Your task to perform on an android device: allow notifications from all sites in the chrome app Image 0: 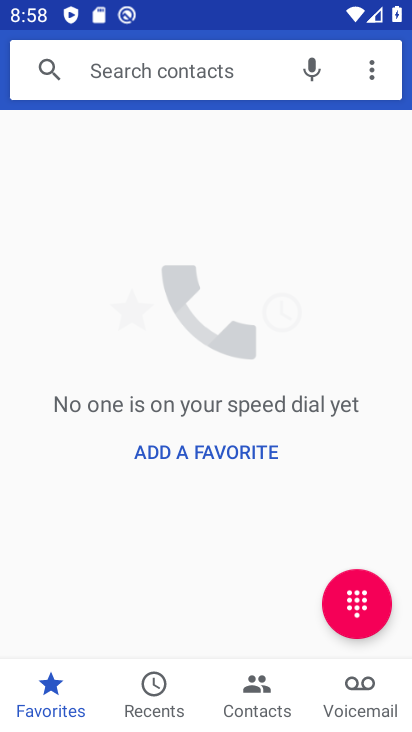
Step 0: press home button
Your task to perform on an android device: allow notifications from all sites in the chrome app Image 1: 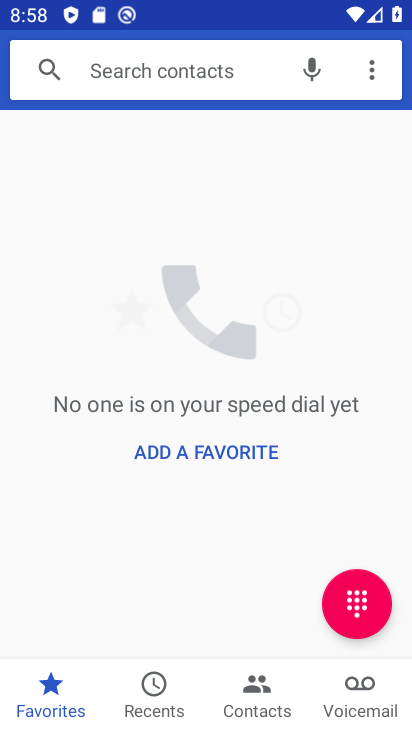
Step 1: press home button
Your task to perform on an android device: allow notifications from all sites in the chrome app Image 2: 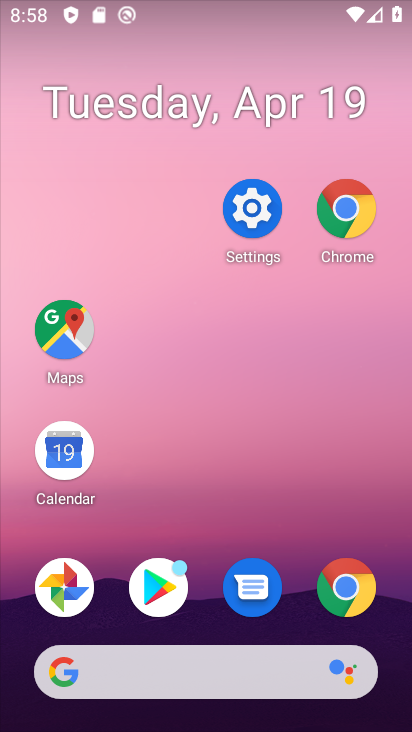
Step 2: drag from (350, 699) to (73, 72)
Your task to perform on an android device: allow notifications from all sites in the chrome app Image 3: 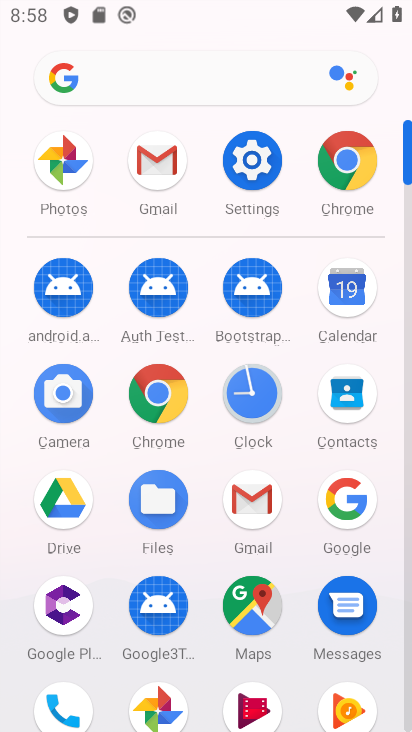
Step 3: click (345, 156)
Your task to perform on an android device: allow notifications from all sites in the chrome app Image 4: 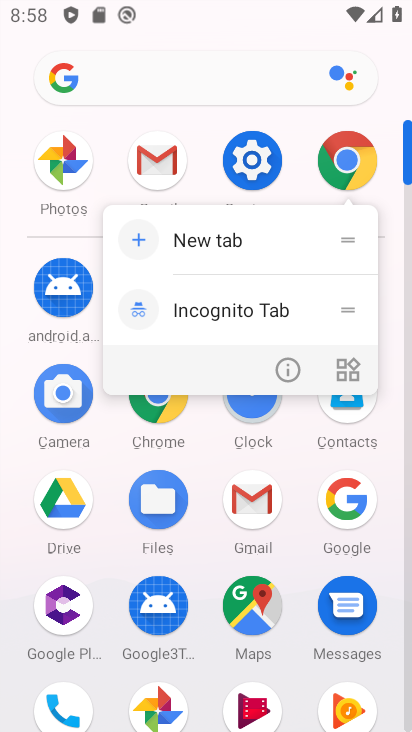
Step 4: click (399, 377)
Your task to perform on an android device: allow notifications from all sites in the chrome app Image 5: 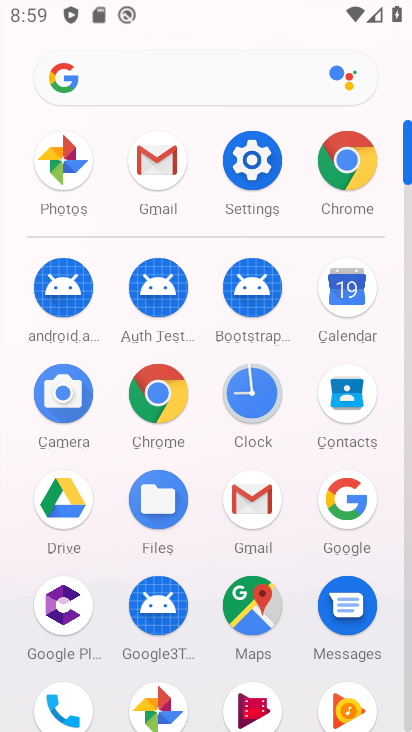
Step 5: click (345, 154)
Your task to perform on an android device: allow notifications from all sites in the chrome app Image 6: 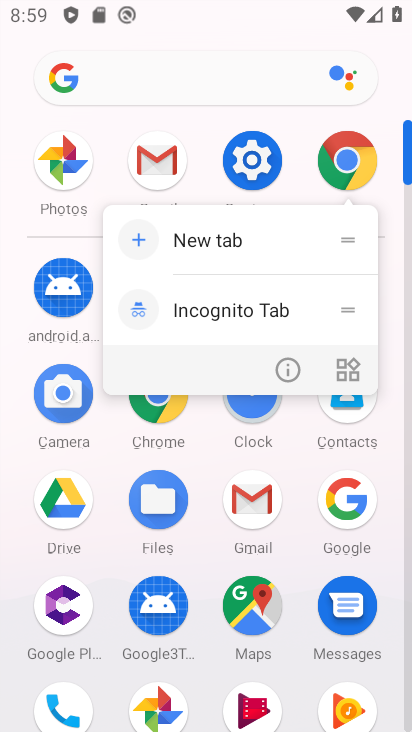
Step 6: click (357, 175)
Your task to perform on an android device: allow notifications from all sites in the chrome app Image 7: 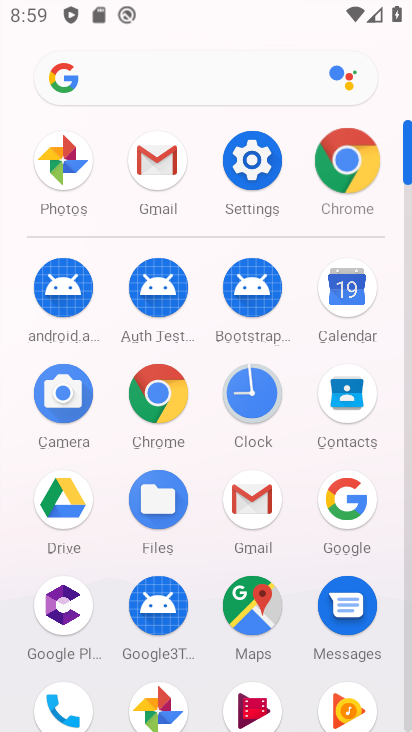
Step 7: click (343, 154)
Your task to perform on an android device: allow notifications from all sites in the chrome app Image 8: 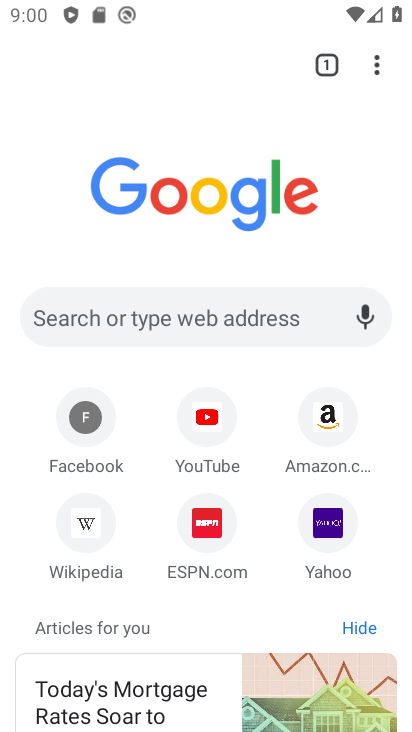
Step 8: press home button
Your task to perform on an android device: allow notifications from all sites in the chrome app Image 9: 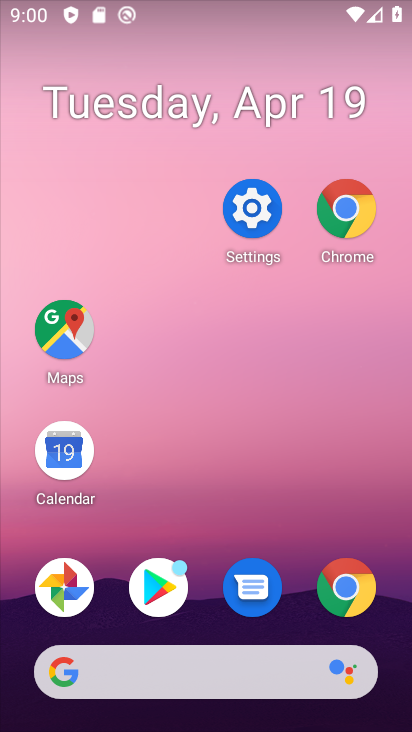
Step 9: drag from (334, 622) to (193, 134)
Your task to perform on an android device: allow notifications from all sites in the chrome app Image 10: 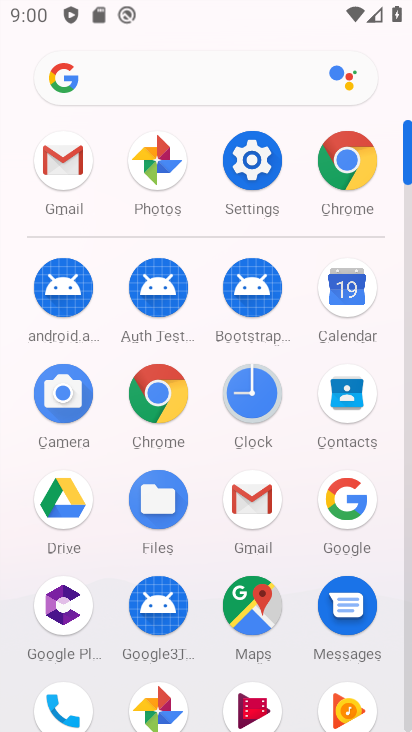
Step 10: click (347, 169)
Your task to perform on an android device: allow notifications from all sites in the chrome app Image 11: 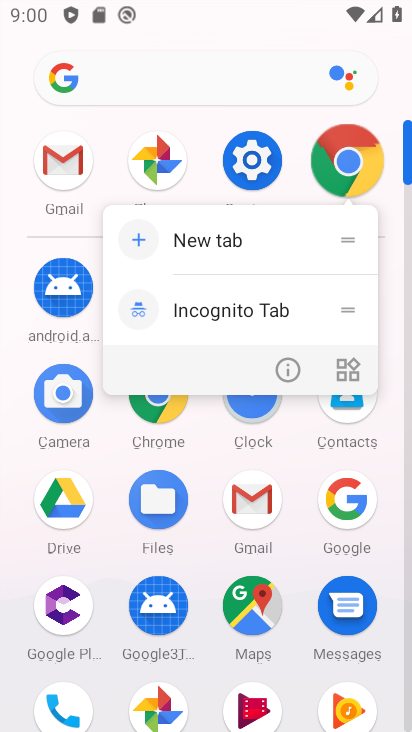
Step 11: click (347, 169)
Your task to perform on an android device: allow notifications from all sites in the chrome app Image 12: 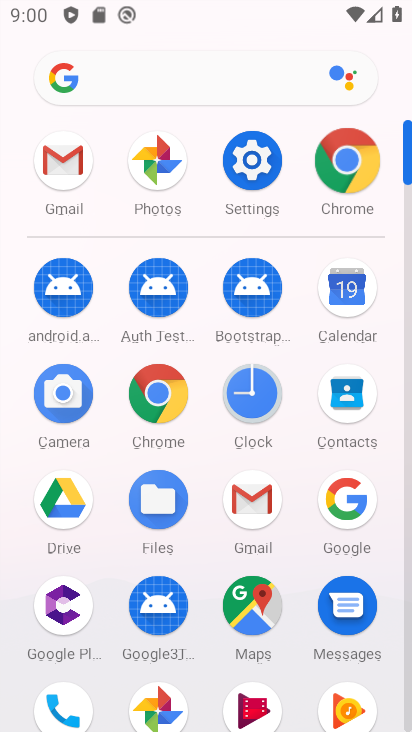
Step 12: click (346, 168)
Your task to perform on an android device: allow notifications from all sites in the chrome app Image 13: 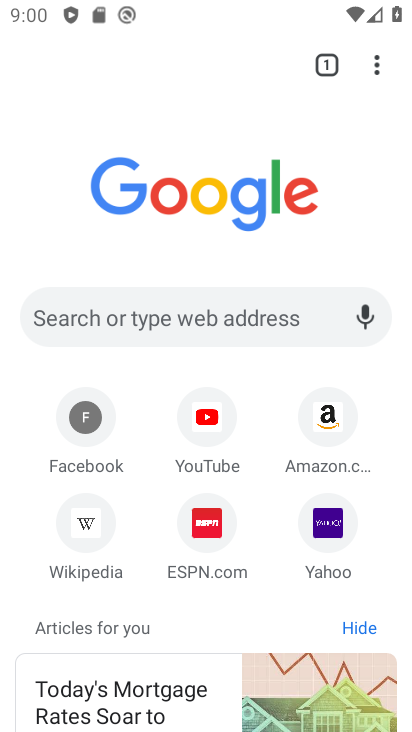
Step 13: click (373, 65)
Your task to perform on an android device: allow notifications from all sites in the chrome app Image 14: 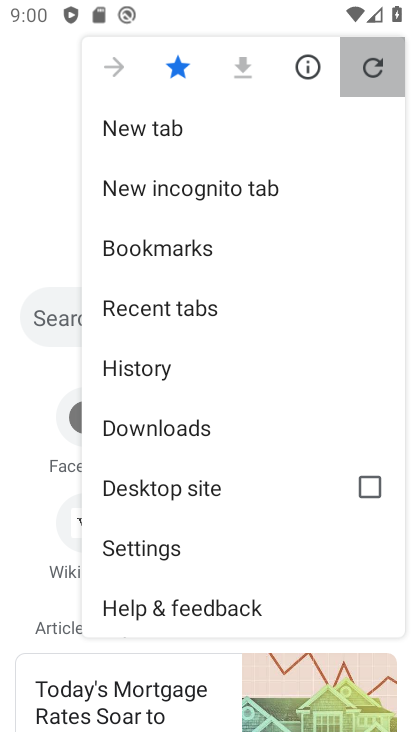
Step 14: click (373, 65)
Your task to perform on an android device: allow notifications from all sites in the chrome app Image 15: 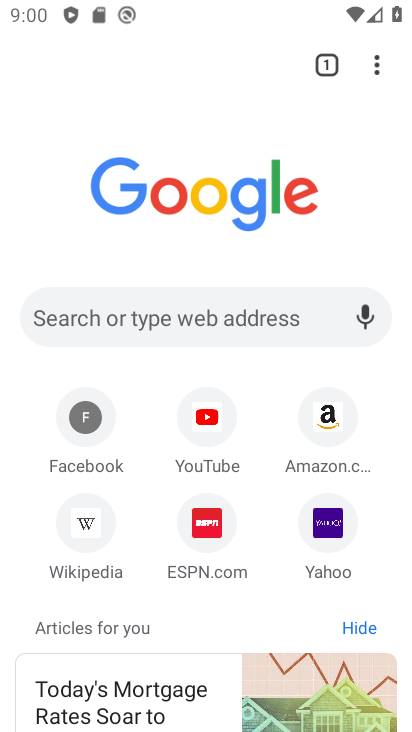
Step 15: click (373, 65)
Your task to perform on an android device: allow notifications from all sites in the chrome app Image 16: 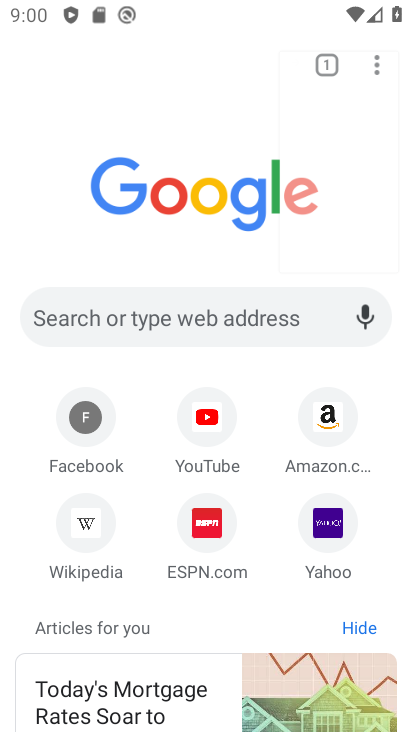
Step 16: click (373, 65)
Your task to perform on an android device: allow notifications from all sites in the chrome app Image 17: 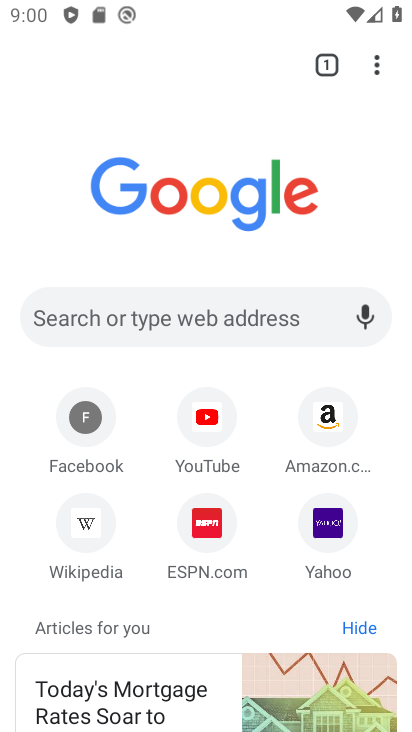
Step 17: click (373, 65)
Your task to perform on an android device: allow notifications from all sites in the chrome app Image 18: 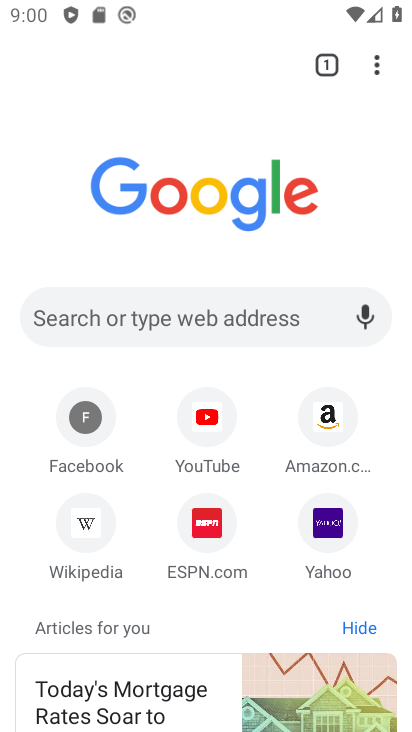
Step 18: click (375, 59)
Your task to perform on an android device: allow notifications from all sites in the chrome app Image 19: 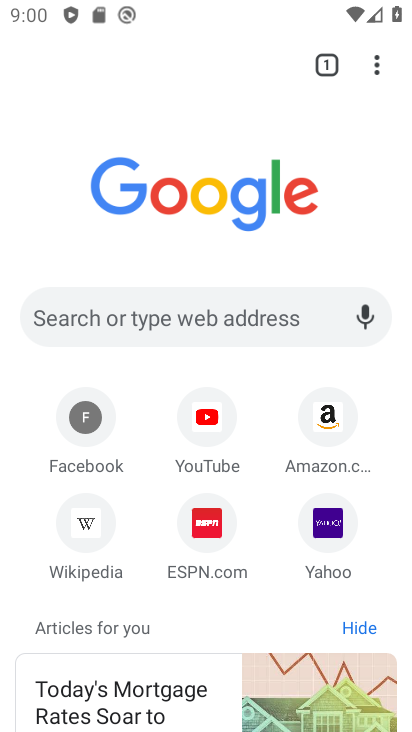
Step 19: click (376, 58)
Your task to perform on an android device: allow notifications from all sites in the chrome app Image 20: 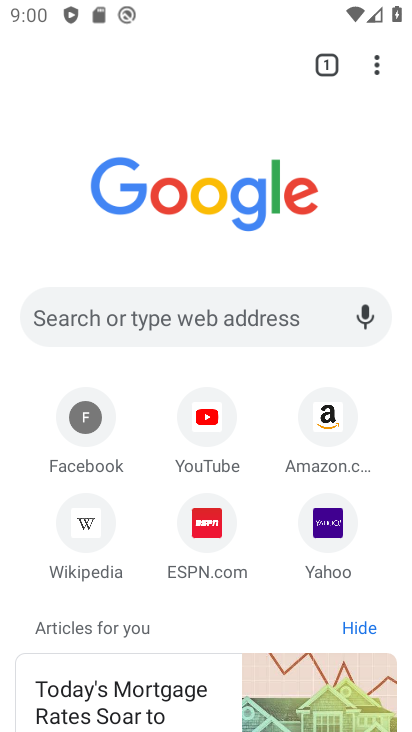
Step 20: click (377, 58)
Your task to perform on an android device: allow notifications from all sites in the chrome app Image 21: 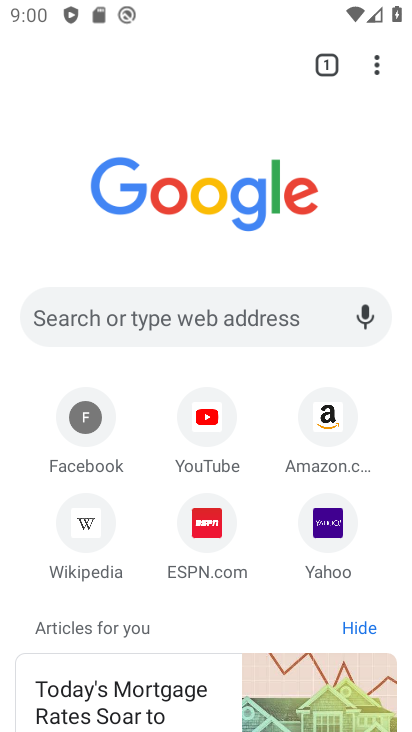
Step 21: click (380, 61)
Your task to perform on an android device: allow notifications from all sites in the chrome app Image 22: 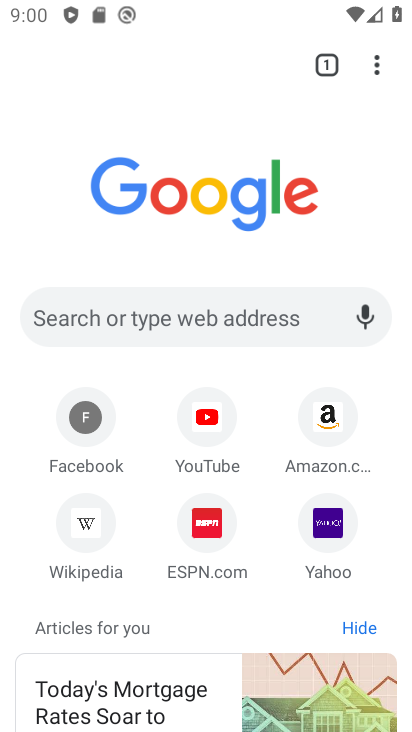
Step 22: click (371, 62)
Your task to perform on an android device: allow notifications from all sites in the chrome app Image 23: 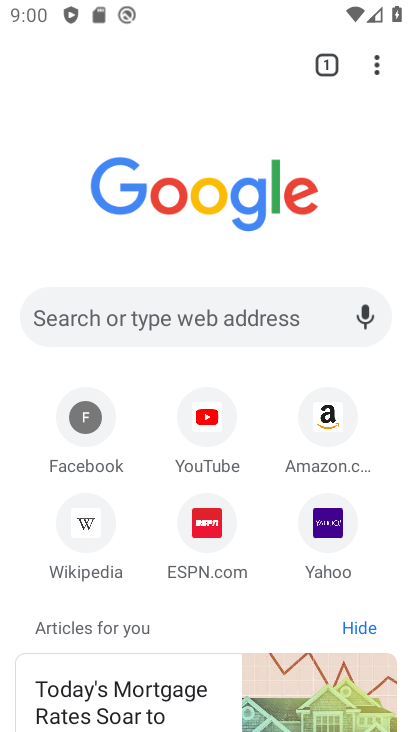
Step 23: click (371, 62)
Your task to perform on an android device: allow notifications from all sites in the chrome app Image 24: 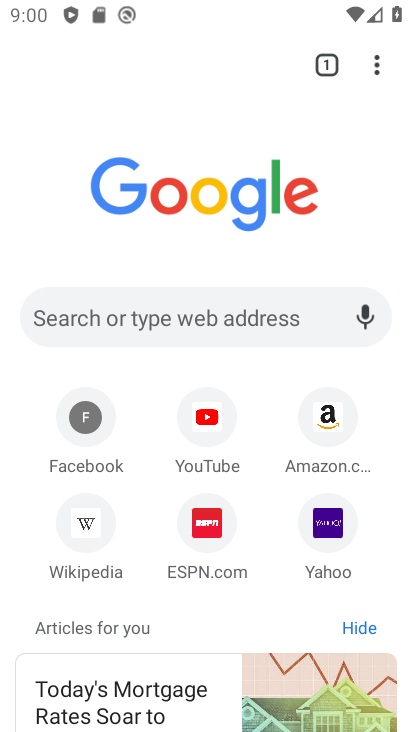
Step 24: click (371, 62)
Your task to perform on an android device: allow notifications from all sites in the chrome app Image 25: 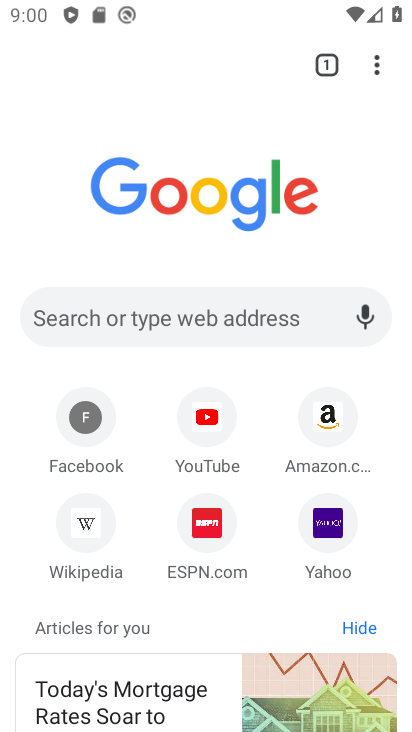
Step 25: click (371, 62)
Your task to perform on an android device: allow notifications from all sites in the chrome app Image 26: 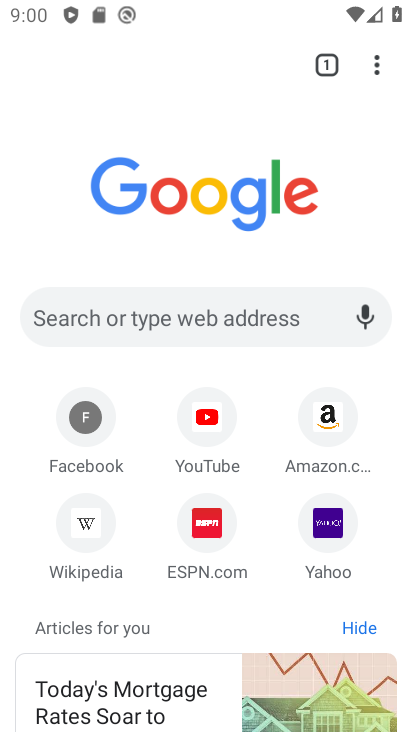
Step 26: click (371, 62)
Your task to perform on an android device: allow notifications from all sites in the chrome app Image 27: 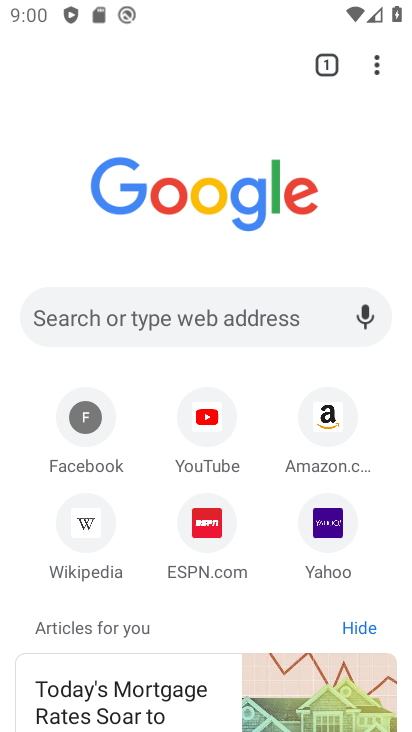
Step 27: click (372, 64)
Your task to perform on an android device: allow notifications from all sites in the chrome app Image 28: 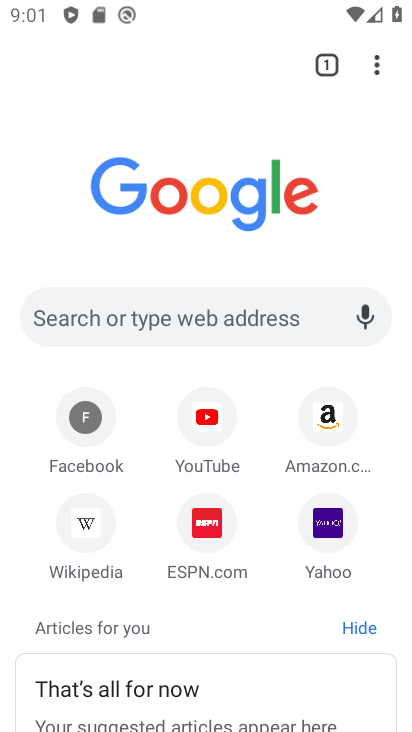
Step 28: click (372, 64)
Your task to perform on an android device: allow notifications from all sites in the chrome app Image 29: 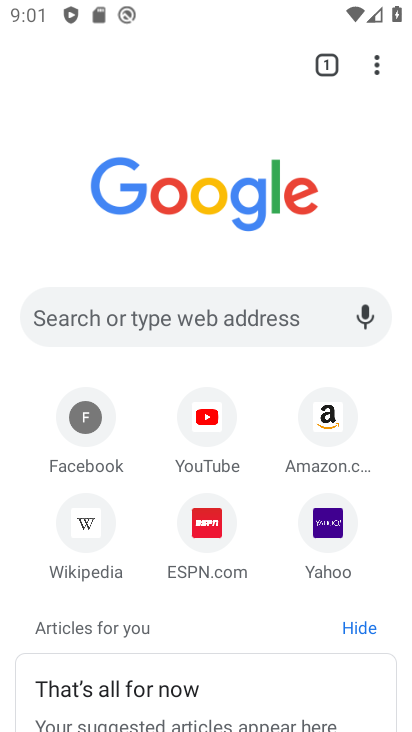
Step 29: click (372, 64)
Your task to perform on an android device: allow notifications from all sites in the chrome app Image 30: 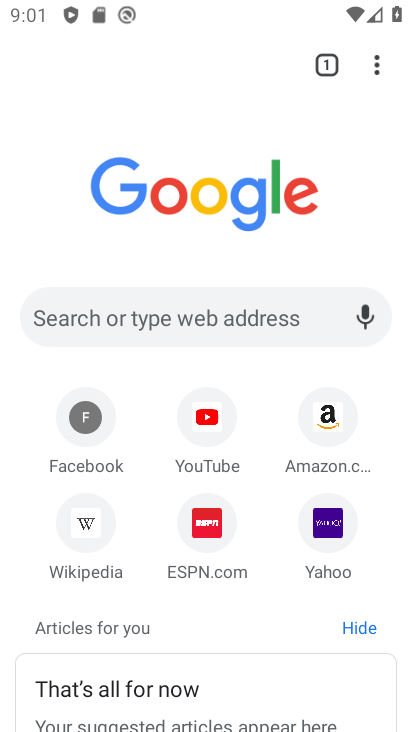
Step 30: click (372, 64)
Your task to perform on an android device: allow notifications from all sites in the chrome app Image 31: 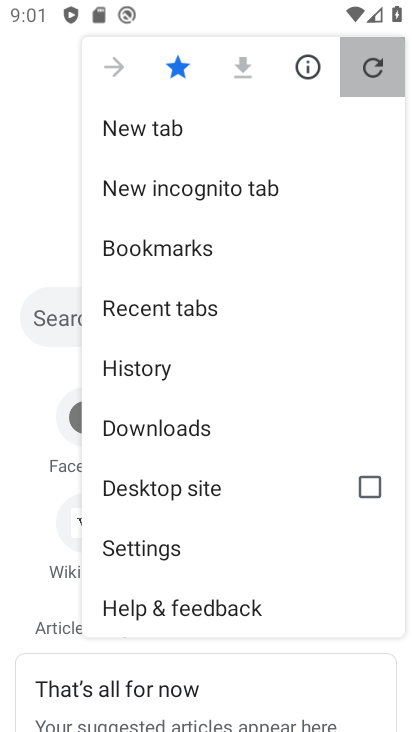
Step 31: click (373, 64)
Your task to perform on an android device: allow notifications from all sites in the chrome app Image 32: 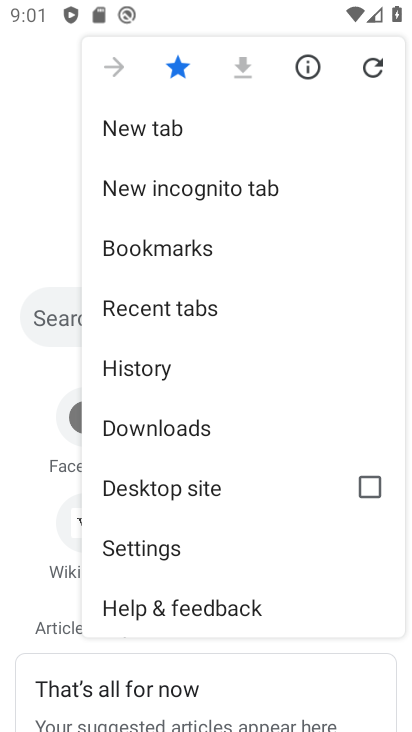
Step 32: click (147, 542)
Your task to perform on an android device: allow notifications from all sites in the chrome app Image 33: 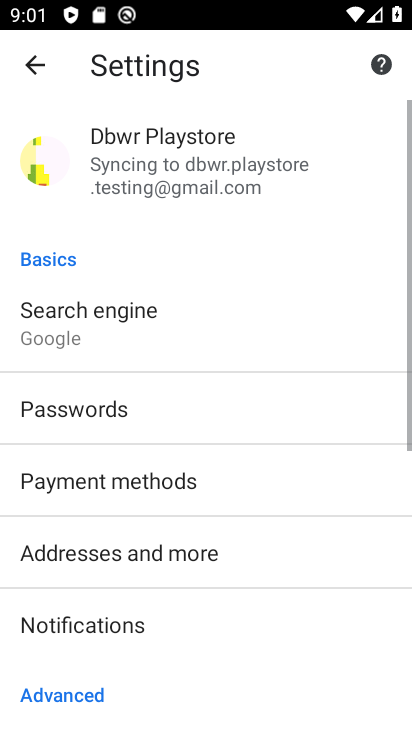
Step 33: drag from (140, 536) to (86, 21)
Your task to perform on an android device: allow notifications from all sites in the chrome app Image 34: 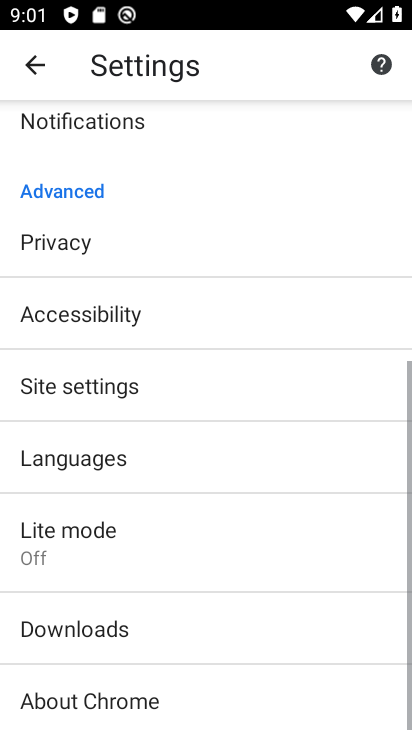
Step 34: drag from (147, 383) to (112, 24)
Your task to perform on an android device: allow notifications from all sites in the chrome app Image 35: 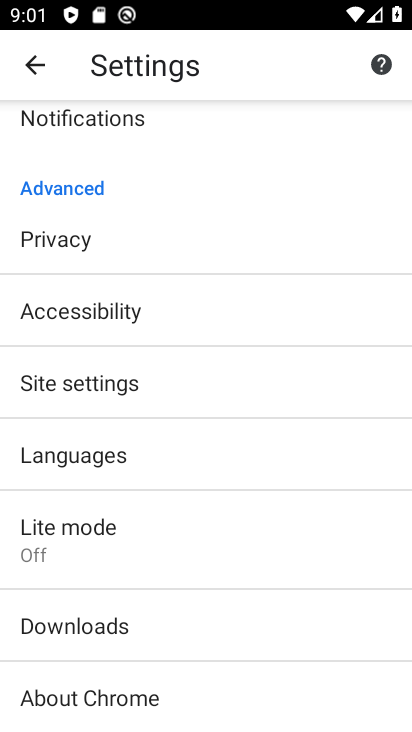
Step 35: click (61, 388)
Your task to perform on an android device: allow notifications from all sites in the chrome app Image 36: 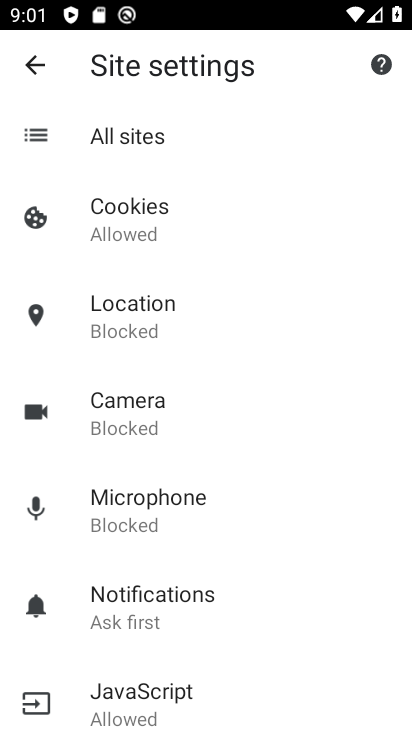
Step 36: click (106, 129)
Your task to perform on an android device: allow notifications from all sites in the chrome app Image 37: 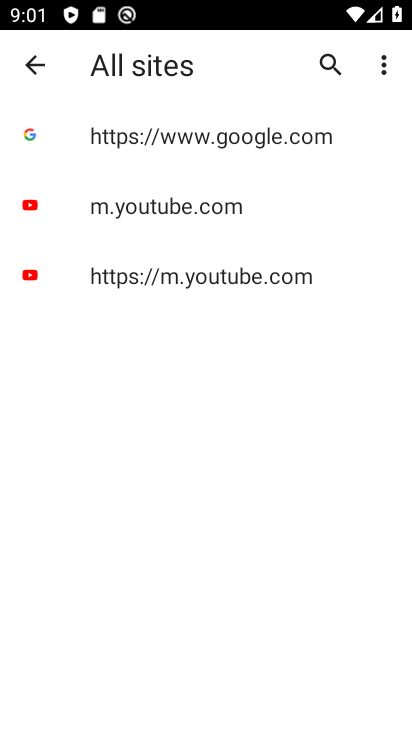
Step 37: click (176, 129)
Your task to perform on an android device: allow notifications from all sites in the chrome app Image 38: 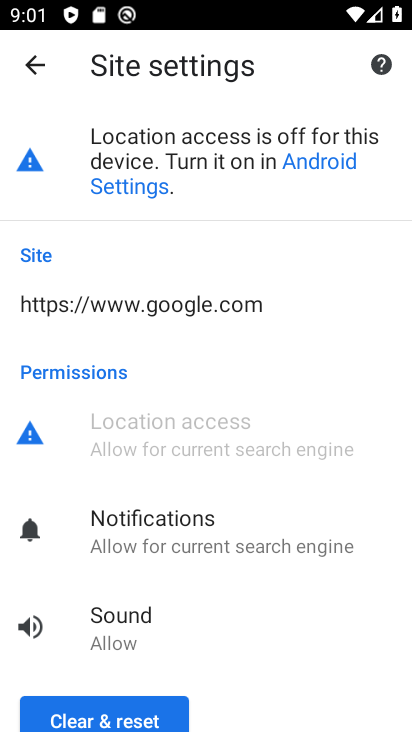
Step 38: drag from (251, 608) to (126, 221)
Your task to perform on an android device: allow notifications from all sites in the chrome app Image 39: 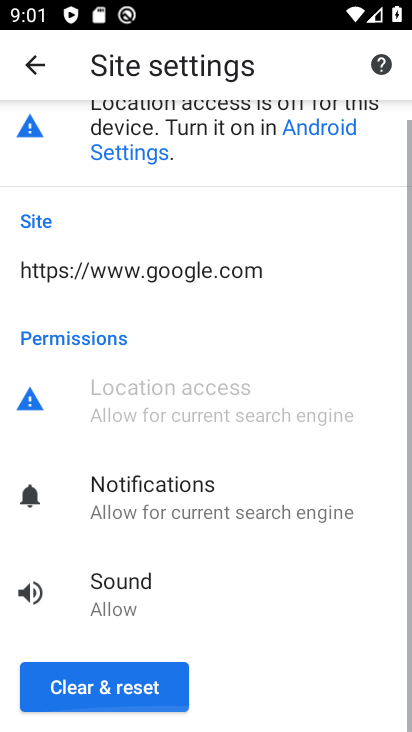
Step 39: drag from (227, 437) to (191, 218)
Your task to perform on an android device: allow notifications from all sites in the chrome app Image 40: 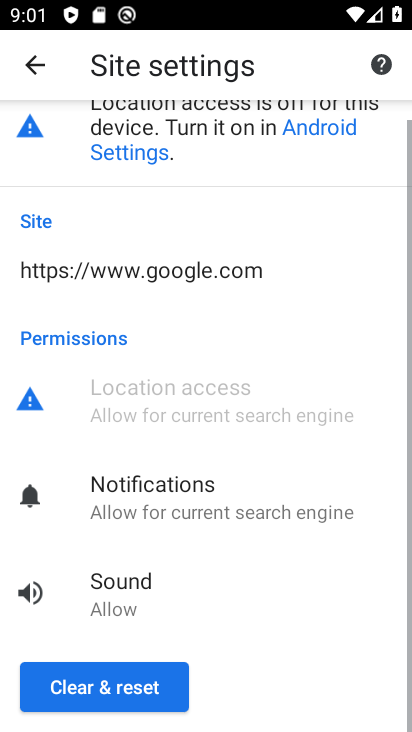
Step 40: click (127, 682)
Your task to perform on an android device: allow notifications from all sites in the chrome app Image 41: 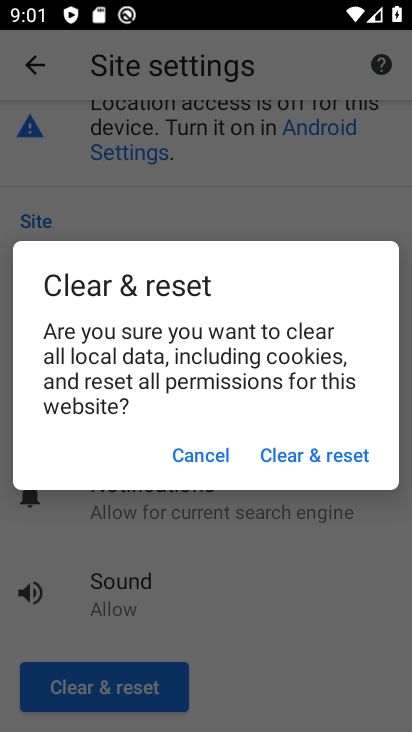
Step 41: click (191, 450)
Your task to perform on an android device: allow notifications from all sites in the chrome app Image 42: 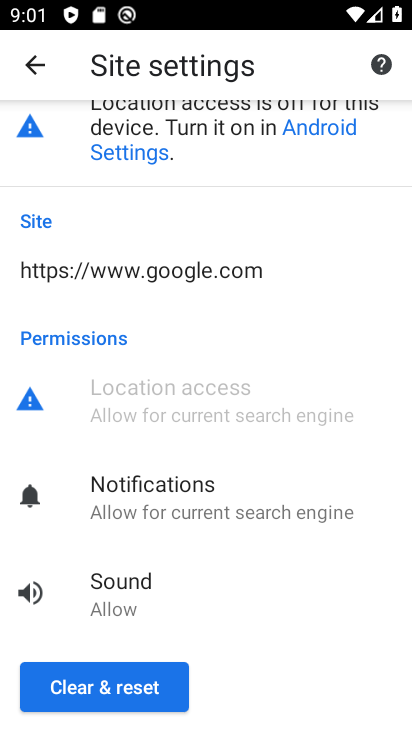
Step 42: click (122, 491)
Your task to perform on an android device: allow notifications from all sites in the chrome app Image 43: 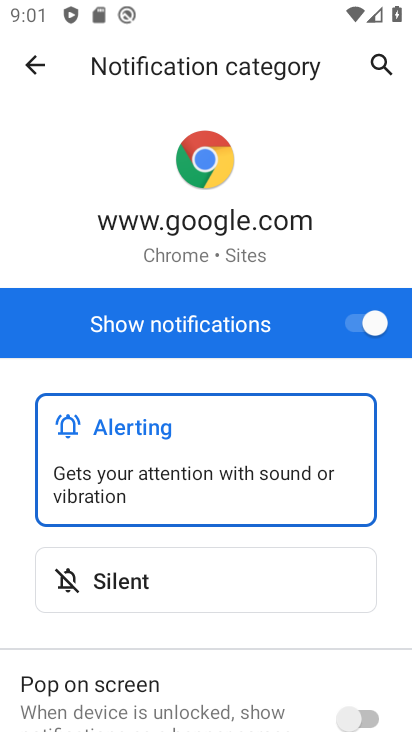
Step 43: click (29, 72)
Your task to perform on an android device: allow notifications from all sites in the chrome app Image 44: 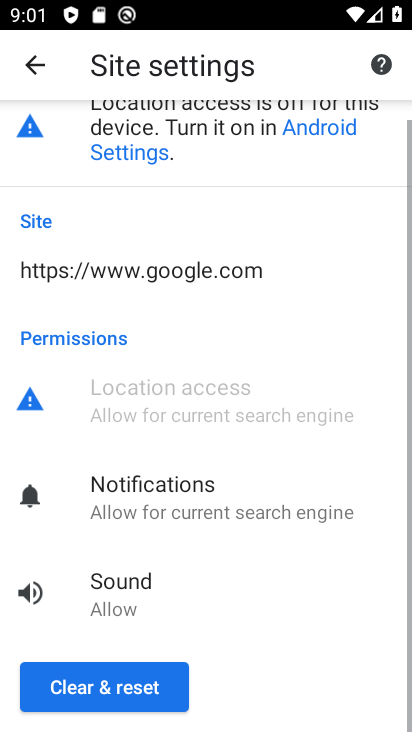
Step 44: click (136, 580)
Your task to perform on an android device: allow notifications from all sites in the chrome app Image 45: 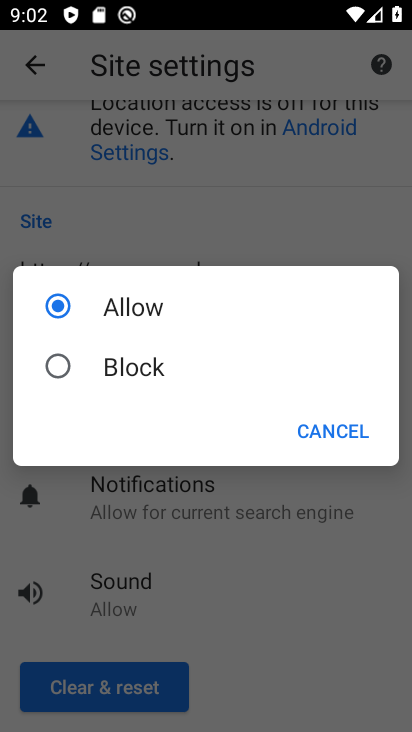
Step 45: click (353, 426)
Your task to perform on an android device: allow notifications from all sites in the chrome app Image 46: 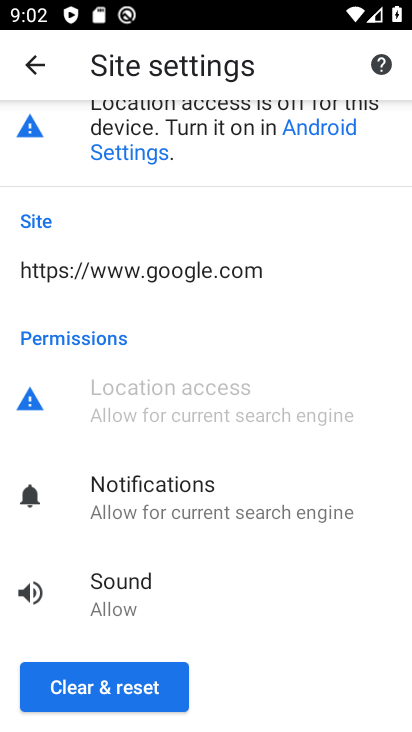
Step 46: task complete